Your task to perform on an android device: Do I have any events this weekend? Image 0: 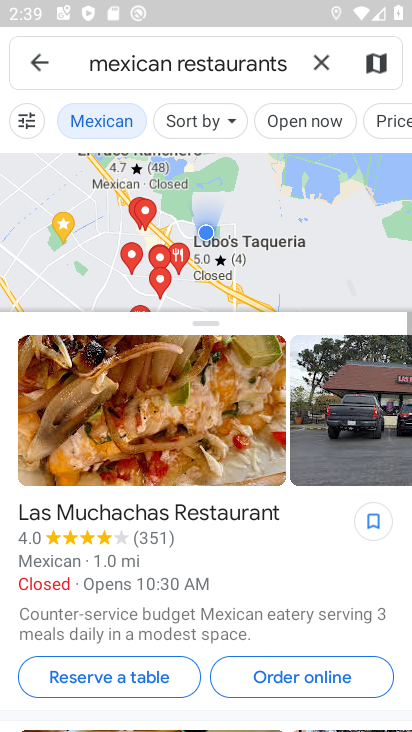
Step 0: press home button
Your task to perform on an android device: Do I have any events this weekend? Image 1: 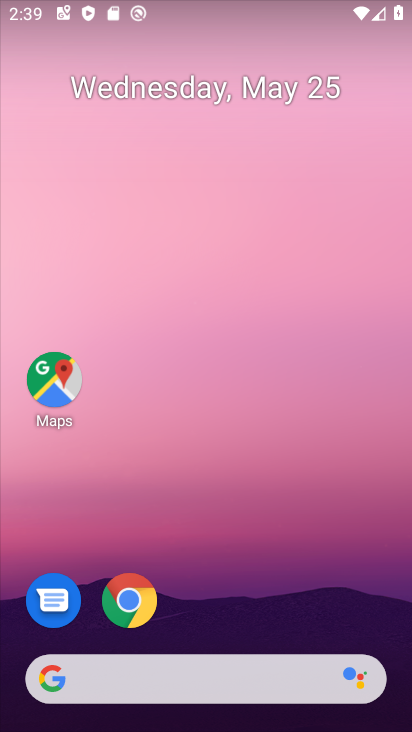
Step 1: drag from (14, 578) to (248, 52)
Your task to perform on an android device: Do I have any events this weekend? Image 2: 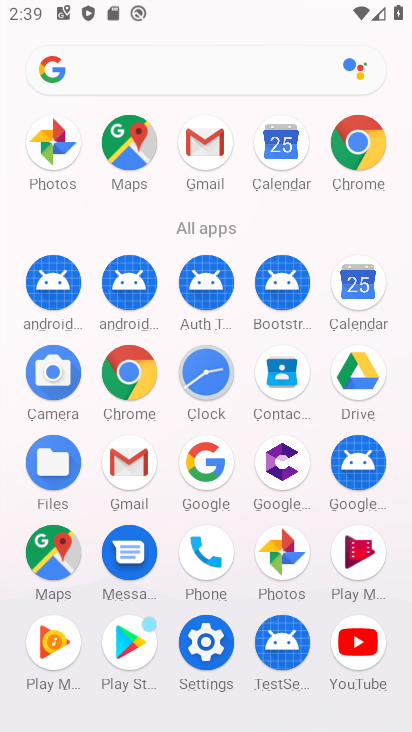
Step 2: click (348, 277)
Your task to perform on an android device: Do I have any events this weekend? Image 3: 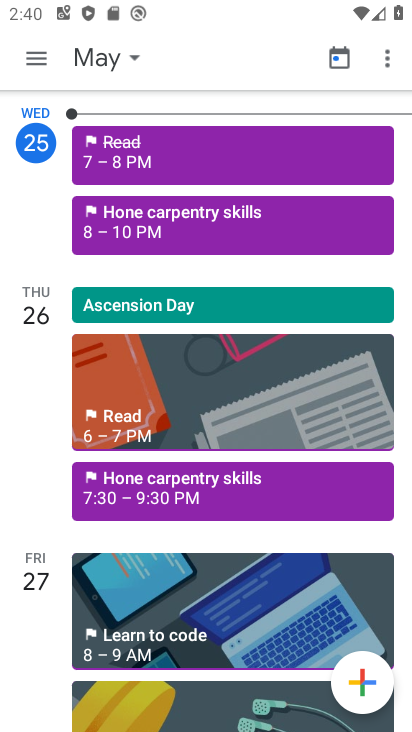
Step 3: click (121, 62)
Your task to perform on an android device: Do I have any events this weekend? Image 4: 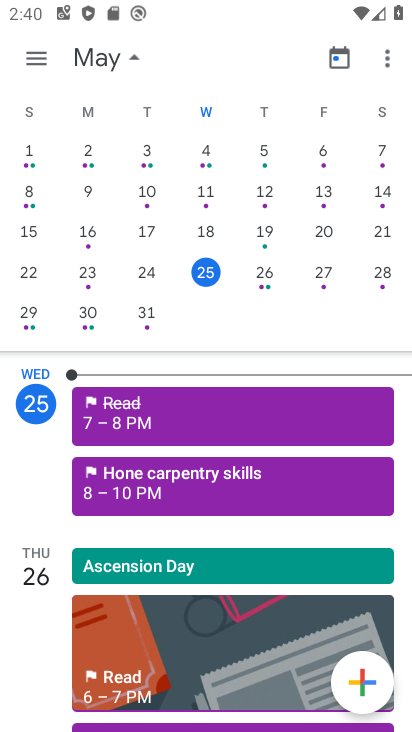
Step 4: click (379, 277)
Your task to perform on an android device: Do I have any events this weekend? Image 5: 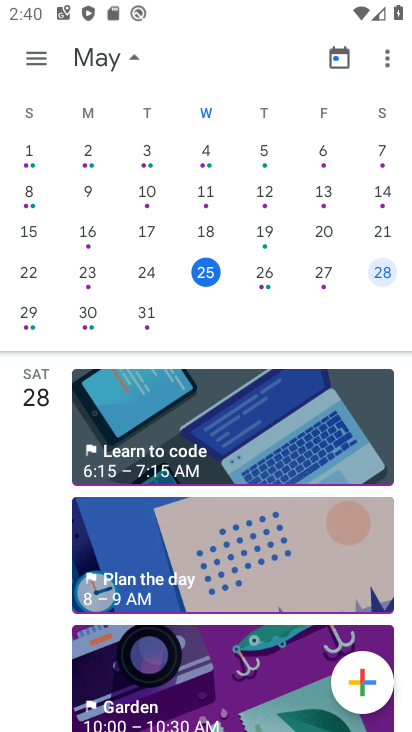
Step 5: task complete